Your task to perform on an android device: Turn off the flashlight Image 0: 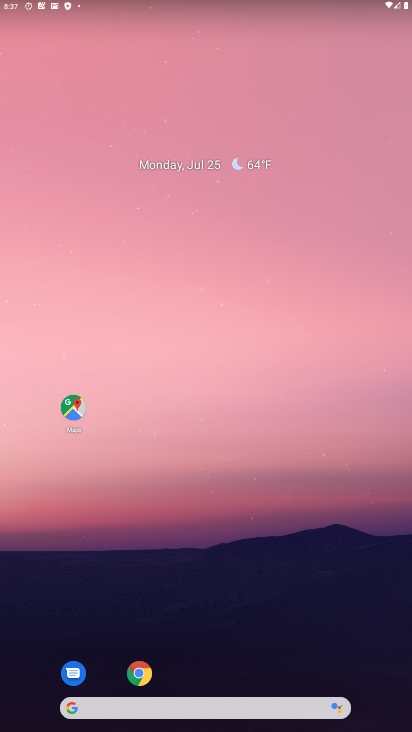
Step 0: drag from (180, 639) to (163, 0)
Your task to perform on an android device: Turn off the flashlight Image 1: 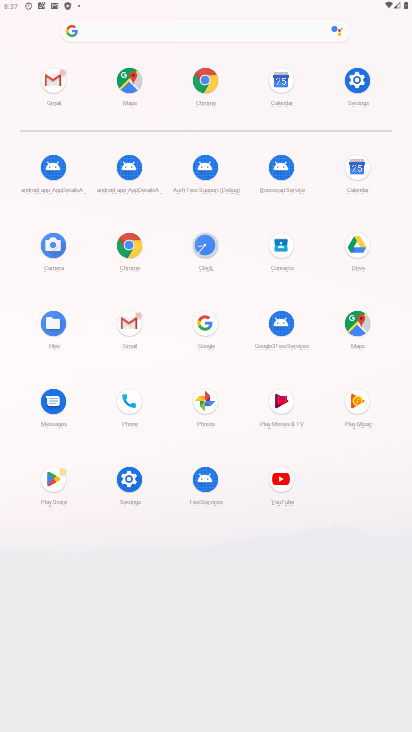
Step 1: click (126, 489)
Your task to perform on an android device: Turn off the flashlight Image 2: 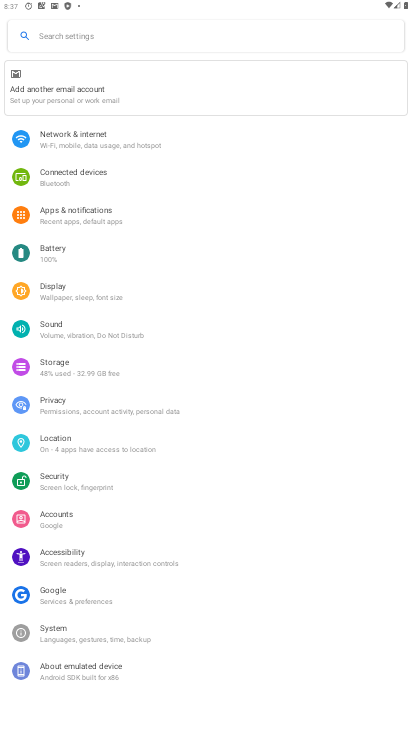
Step 2: click (105, 34)
Your task to perform on an android device: Turn off the flashlight Image 3: 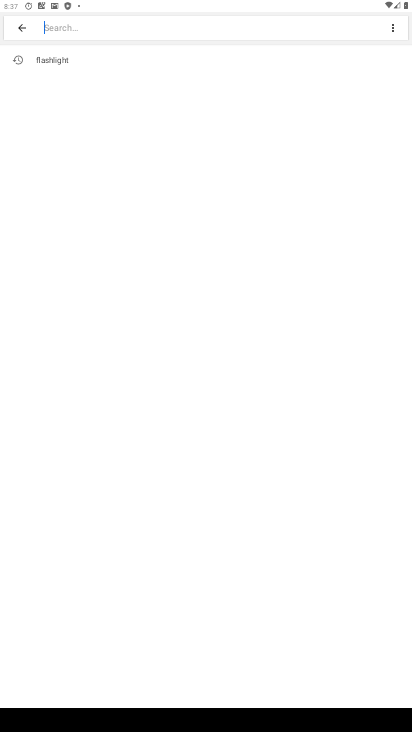
Step 3: click (72, 58)
Your task to perform on an android device: Turn off the flashlight Image 4: 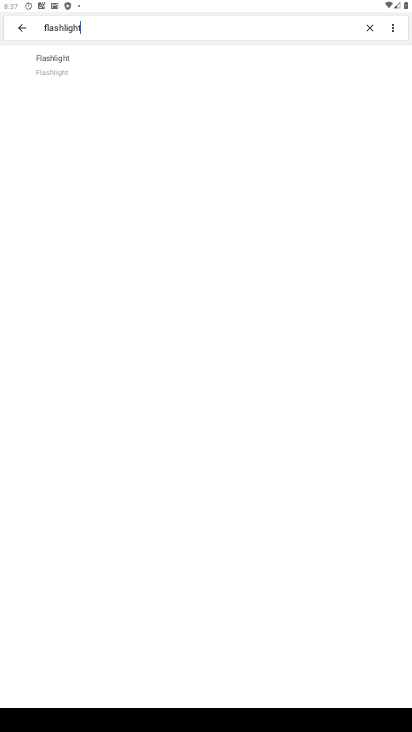
Step 4: drag from (197, 464) to (221, 197)
Your task to perform on an android device: Turn off the flashlight Image 5: 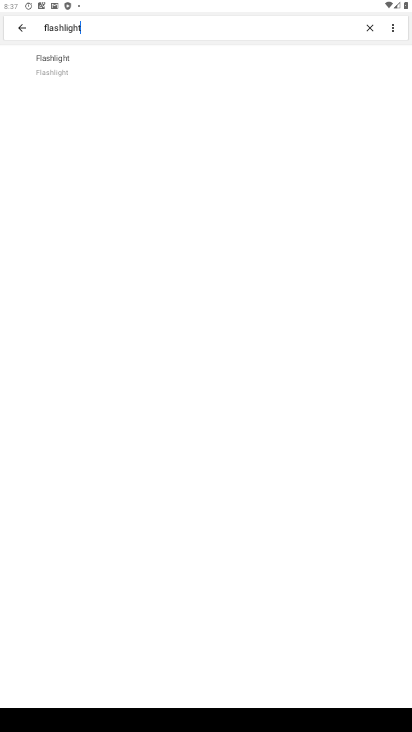
Step 5: click (129, 51)
Your task to perform on an android device: Turn off the flashlight Image 6: 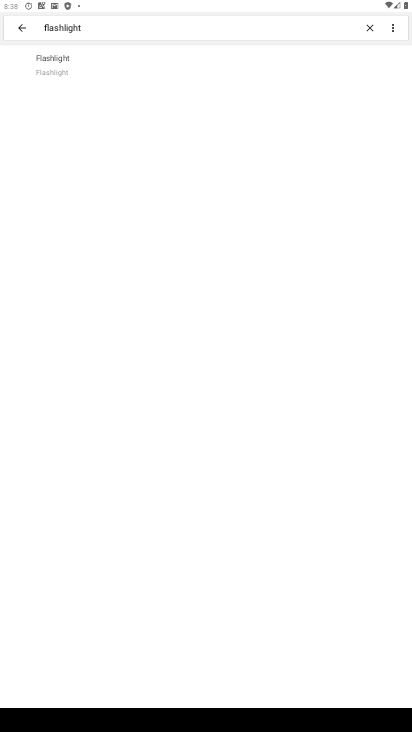
Step 6: click (99, 62)
Your task to perform on an android device: Turn off the flashlight Image 7: 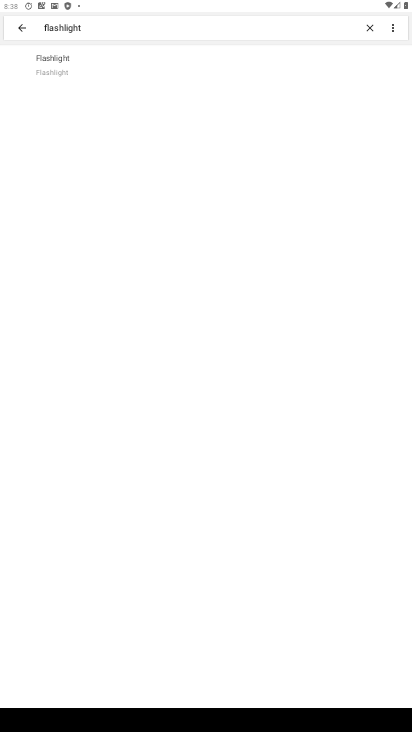
Step 7: task complete